Your task to perform on an android device: turn off wifi Image 0: 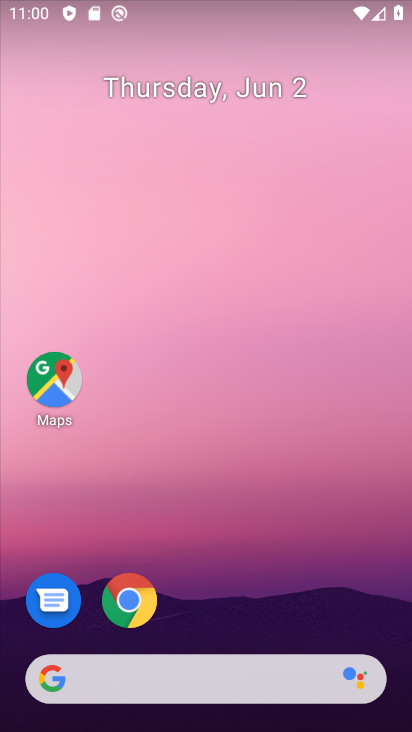
Step 0: drag from (250, 617) to (220, 46)
Your task to perform on an android device: turn off wifi Image 1: 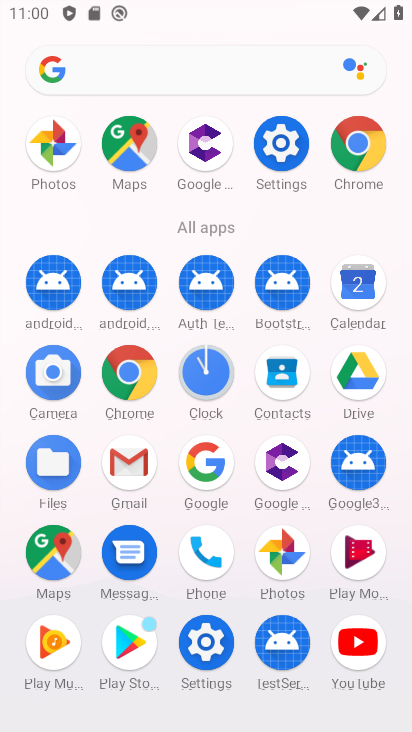
Step 1: click (275, 158)
Your task to perform on an android device: turn off wifi Image 2: 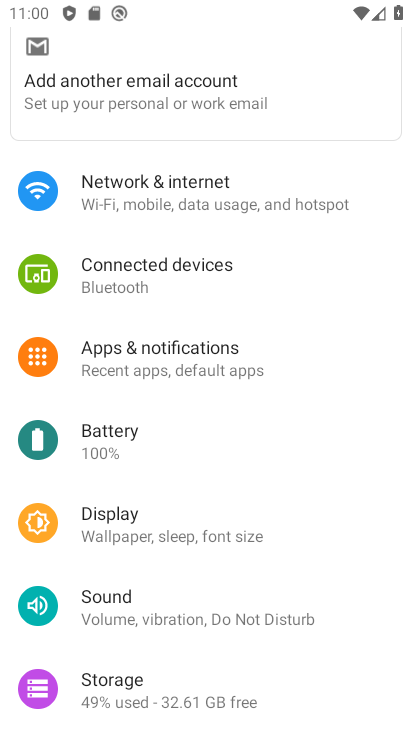
Step 2: click (216, 204)
Your task to perform on an android device: turn off wifi Image 3: 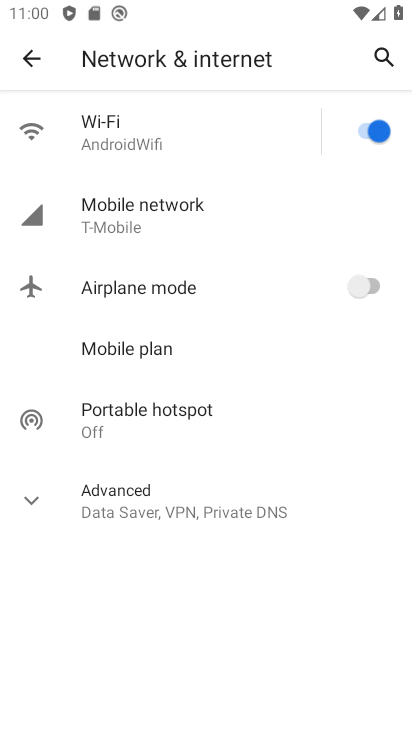
Step 3: click (369, 138)
Your task to perform on an android device: turn off wifi Image 4: 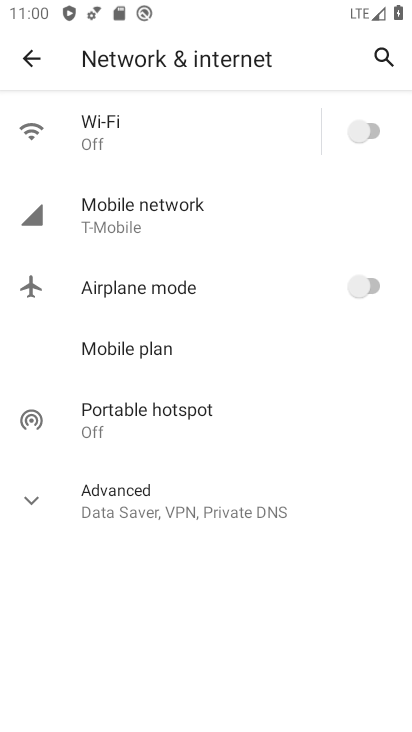
Step 4: task complete